Your task to perform on an android device: turn off improve location accuracy Image 0: 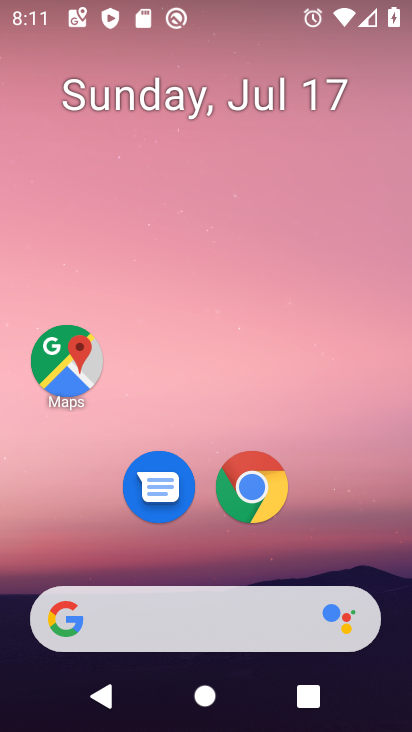
Step 0: drag from (145, 566) to (255, 2)
Your task to perform on an android device: turn off improve location accuracy Image 1: 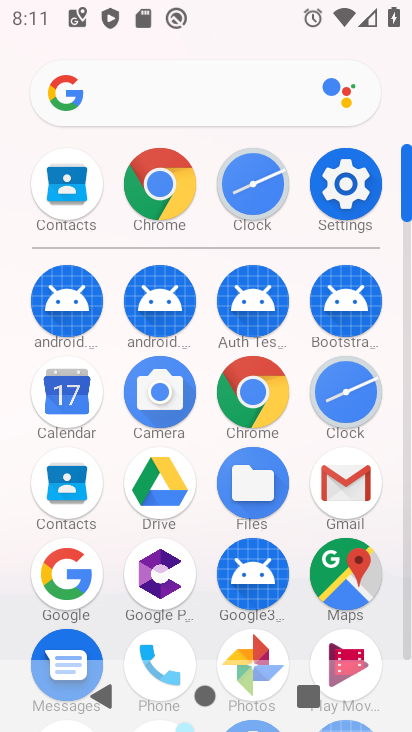
Step 1: click (351, 190)
Your task to perform on an android device: turn off improve location accuracy Image 2: 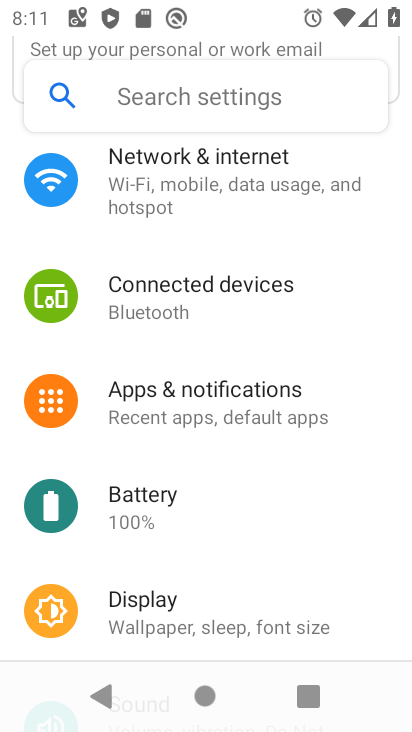
Step 2: drag from (170, 600) to (243, 31)
Your task to perform on an android device: turn off improve location accuracy Image 3: 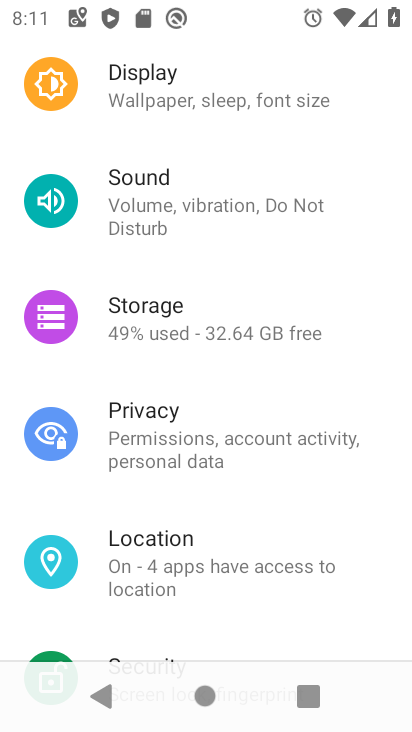
Step 3: click (153, 579)
Your task to perform on an android device: turn off improve location accuracy Image 4: 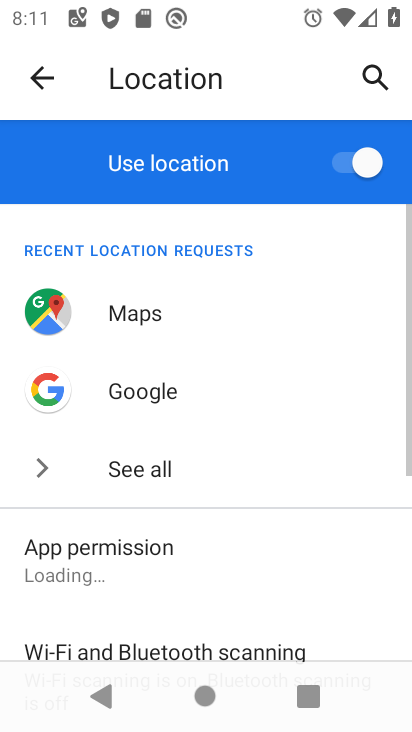
Step 4: drag from (141, 608) to (245, 119)
Your task to perform on an android device: turn off improve location accuracy Image 5: 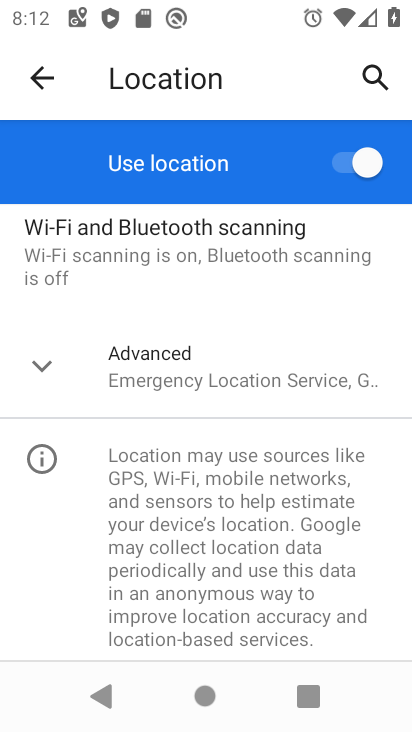
Step 5: click (187, 373)
Your task to perform on an android device: turn off improve location accuracy Image 6: 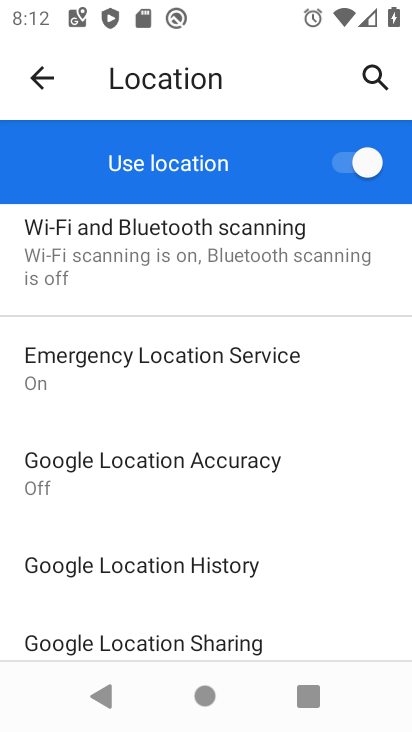
Step 6: click (225, 459)
Your task to perform on an android device: turn off improve location accuracy Image 7: 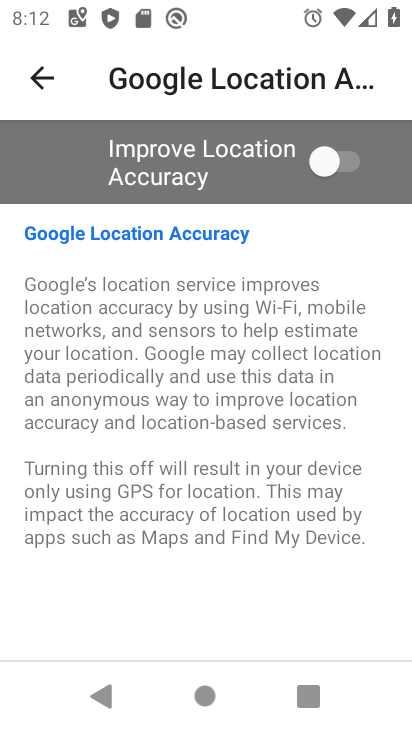
Step 7: task complete